Your task to perform on an android device: Open ESPN.com Image 0: 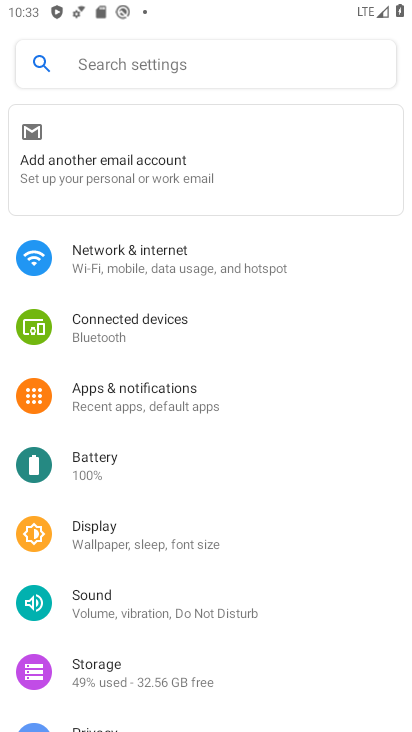
Step 0: press home button
Your task to perform on an android device: Open ESPN.com Image 1: 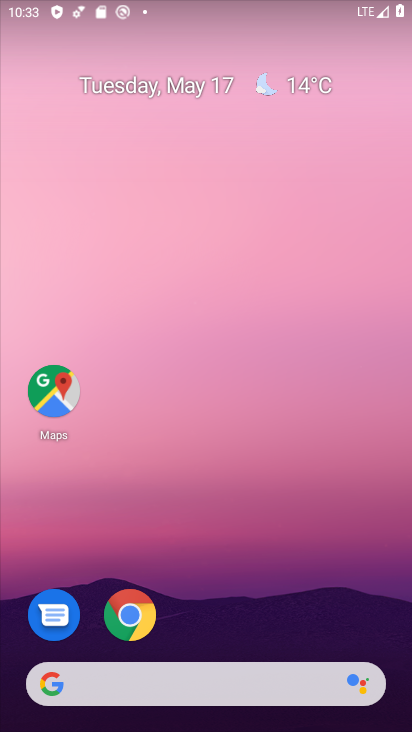
Step 1: click (125, 626)
Your task to perform on an android device: Open ESPN.com Image 2: 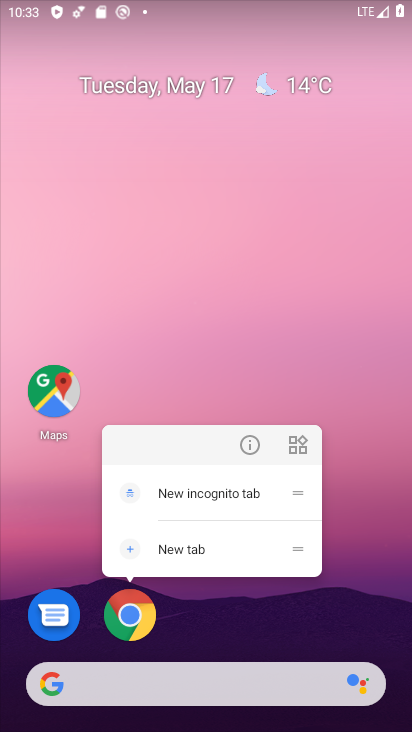
Step 2: click (133, 624)
Your task to perform on an android device: Open ESPN.com Image 3: 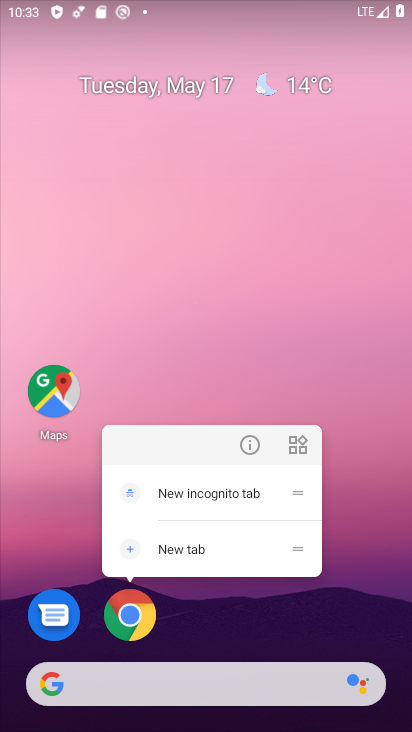
Step 3: click (142, 618)
Your task to perform on an android device: Open ESPN.com Image 4: 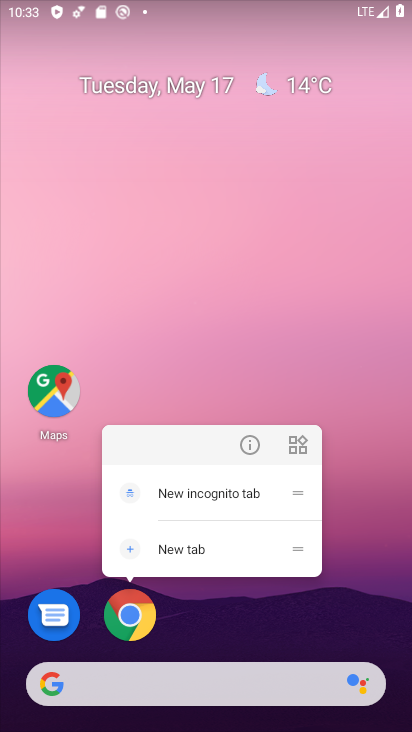
Step 4: click (137, 617)
Your task to perform on an android device: Open ESPN.com Image 5: 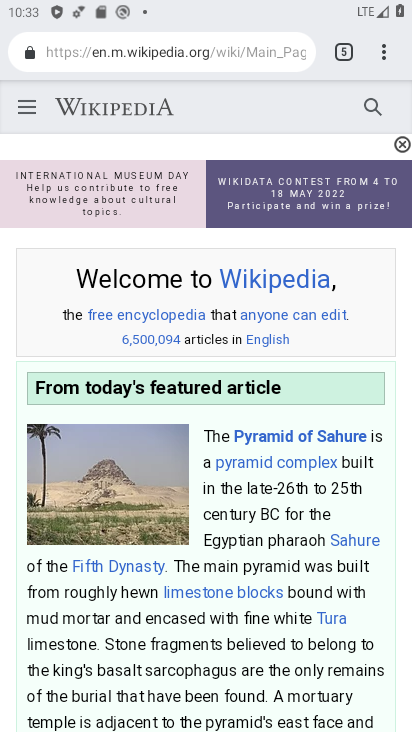
Step 5: drag from (381, 54) to (314, 103)
Your task to perform on an android device: Open ESPN.com Image 6: 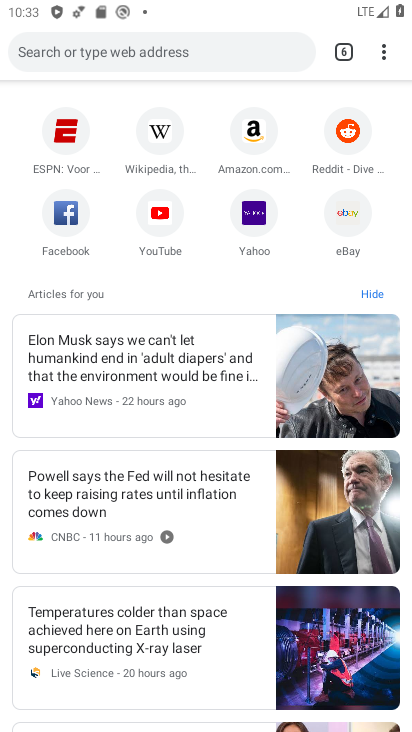
Step 6: click (62, 139)
Your task to perform on an android device: Open ESPN.com Image 7: 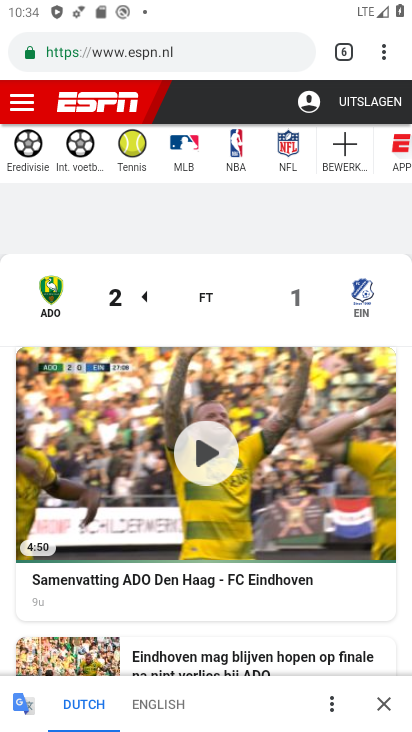
Step 7: task complete